Your task to perform on an android device: turn on translation in the chrome app Image 0: 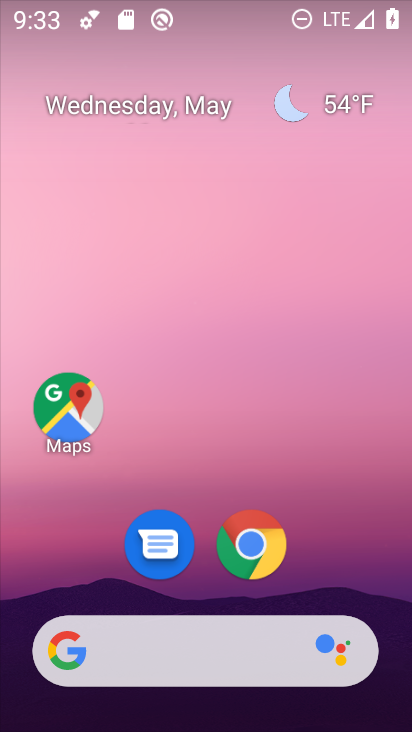
Step 0: click (260, 561)
Your task to perform on an android device: turn on translation in the chrome app Image 1: 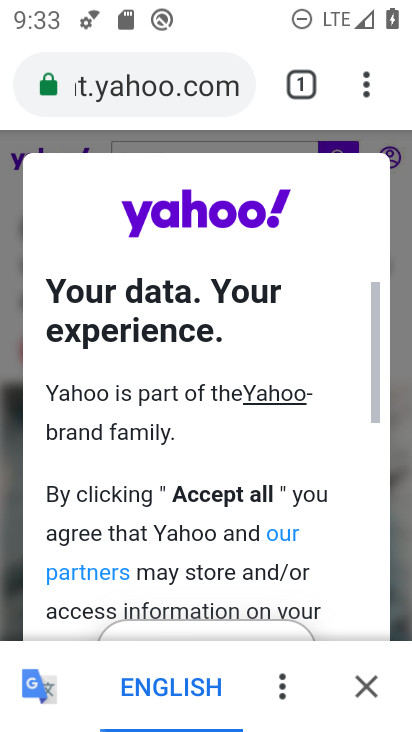
Step 1: click (347, 89)
Your task to perform on an android device: turn on translation in the chrome app Image 2: 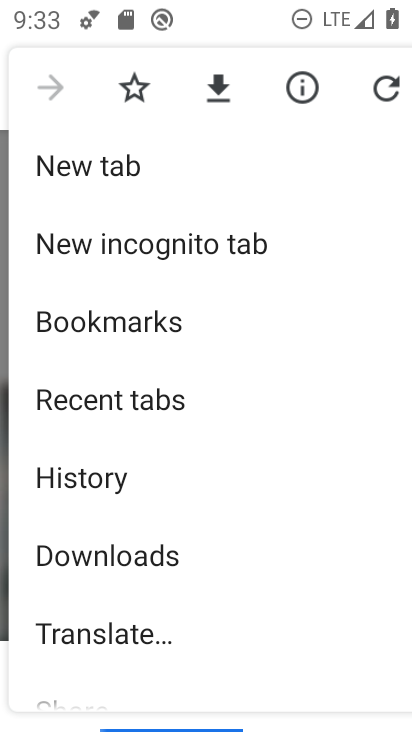
Step 2: drag from (166, 637) to (159, 170)
Your task to perform on an android device: turn on translation in the chrome app Image 3: 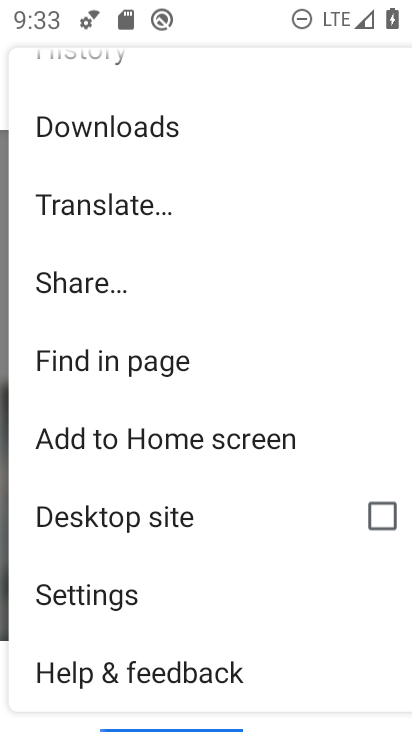
Step 3: click (58, 605)
Your task to perform on an android device: turn on translation in the chrome app Image 4: 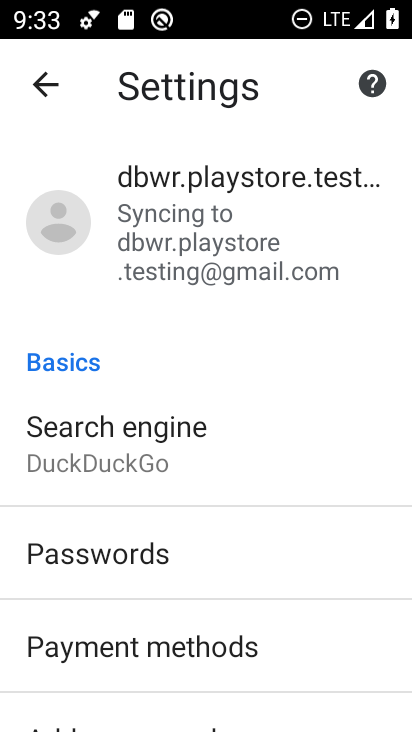
Step 4: drag from (58, 605) to (163, 101)
Your task to perform on an android device: turn on translation in the chrome app Image 5: 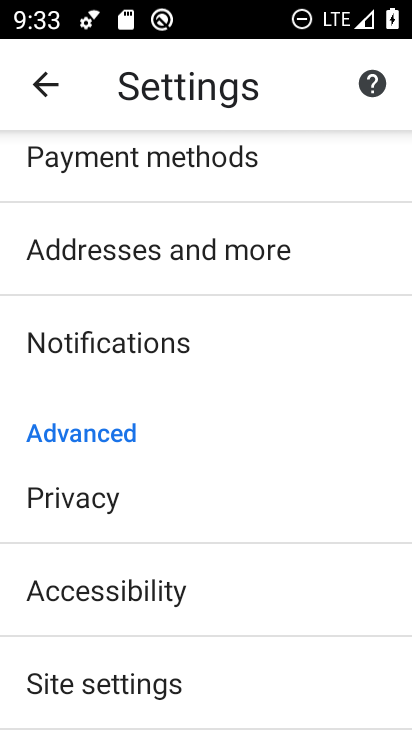
Step 5: drag from (139, 686) to (175, 281)
Your task to perform on an android device: turn on translation in the chrome app Image 6: 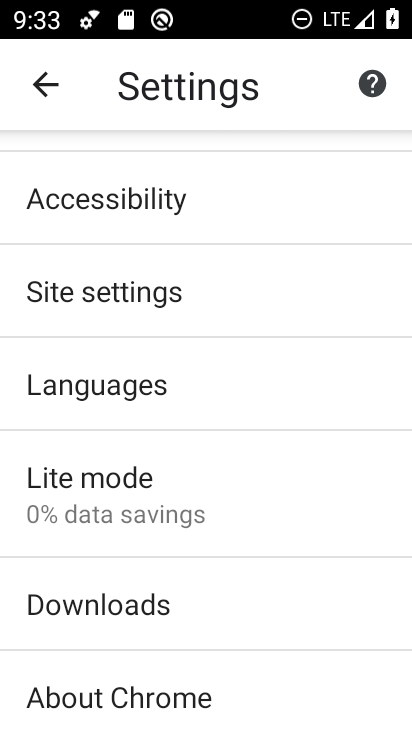
Step 6: click (158, 358)
Your task to perform on an android device: turn on translation in the chrome app Image 7: 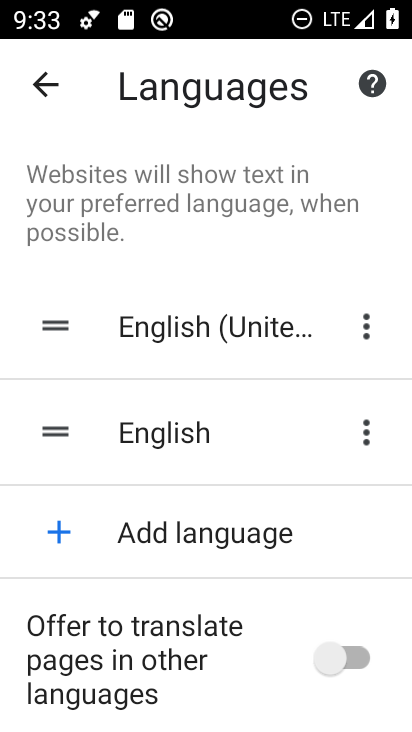
Step 7: click (366, 668)
Your task to perform on an android device: turn on translation in the chrome app Image 8: 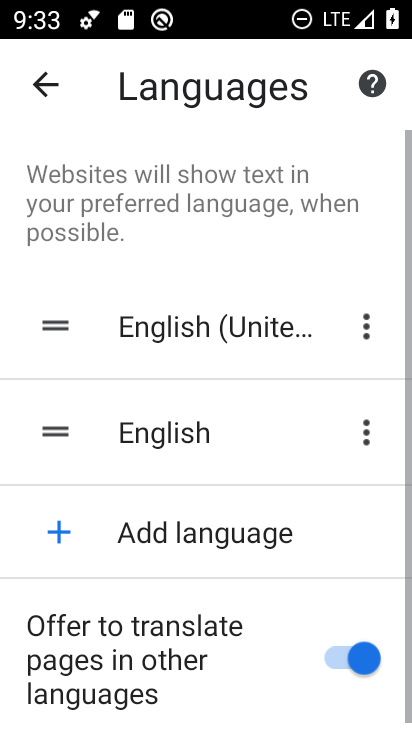
Step 8: task complete